Your task to perform on an android device: Open Yahoo.com Image 0: 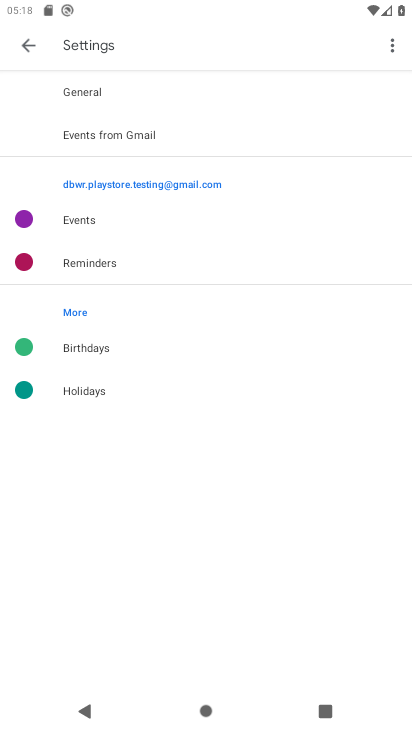
Step 0: press home button
Your task to perform on an android device: Open Yahoo.com Image 1: 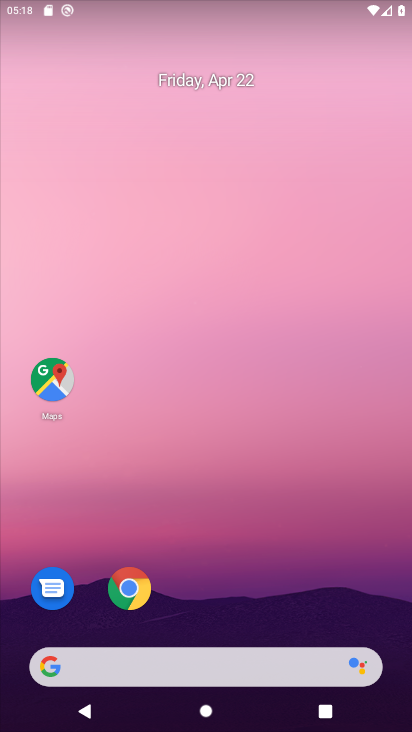
Step 1: click (200, 662)
Your task to perform on an android device: Open Yahoo.com Image 2: 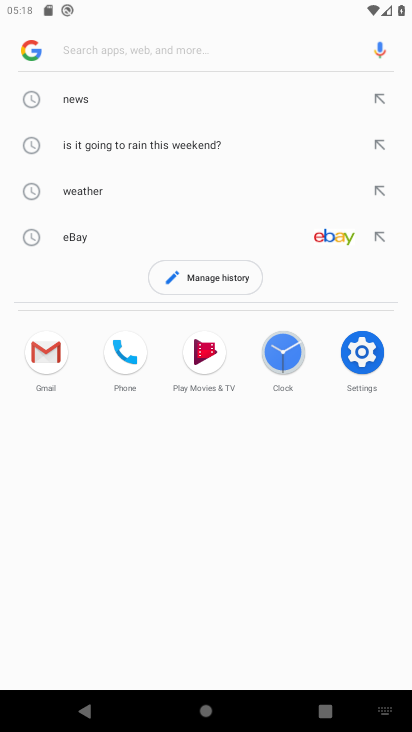
Step 2: press home button
Your task to perform on an android device: Open Yahoo.com Image 3: 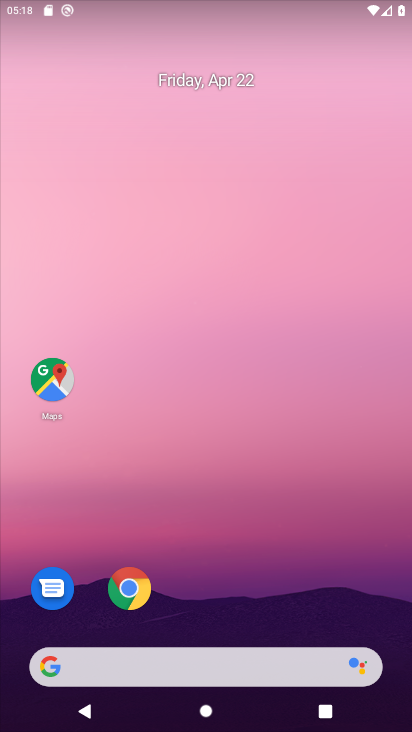
Step 3: click (135, 583)
Your task to perform on an android device: Open Yahoo.com Image 4: 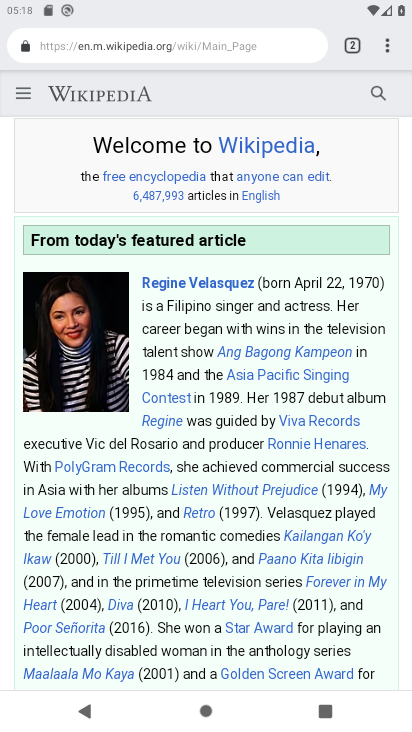
Step 4: click (354, 43)
Your task to perform on an android device: Open Yahoo.com Image 5: 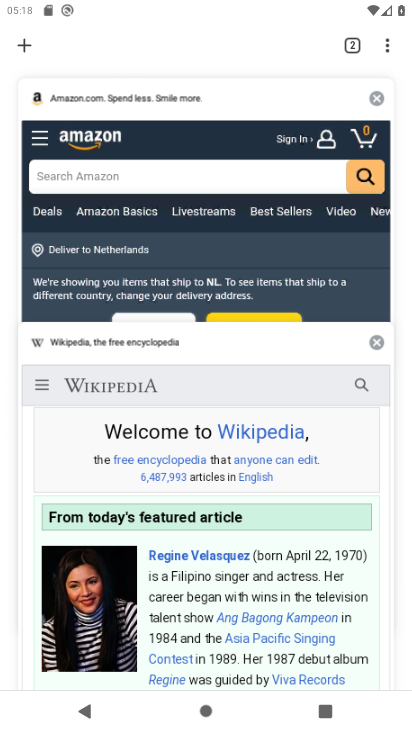
Step 5: click (22, 46)
Your task to perform on an android device: Open Yahoo.com Image 6: 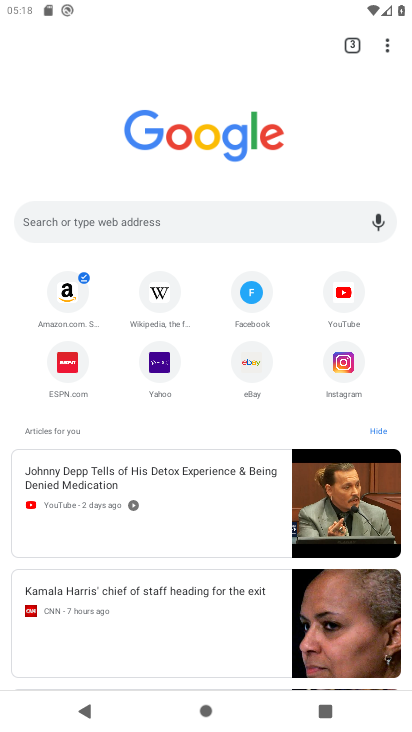
Step 6: click (158, 364)
Your task to perform on an android device: Open Yahoo.com Image 7: 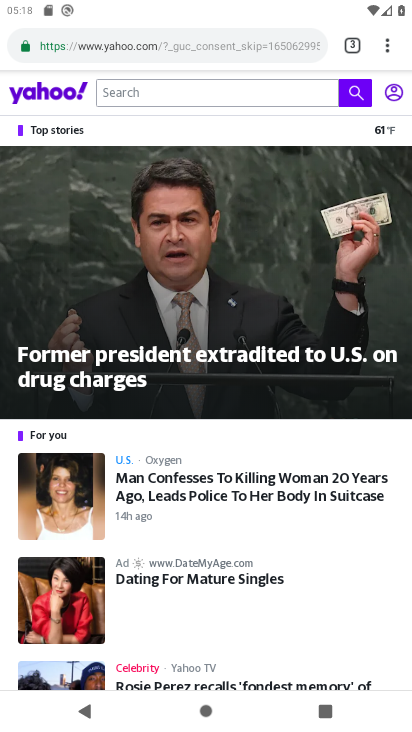
Step 7: task complete